Your task to perform on an android device: make emails show in primary in the gmail app Image 0: 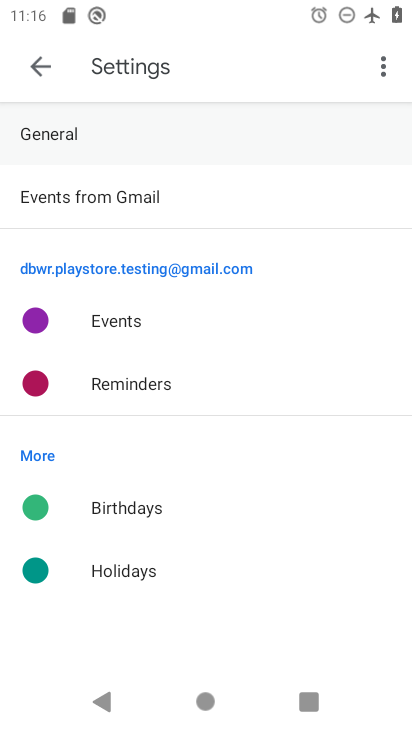
Step 0: press home button
Your task to perform on an android device: make emails show in primary in the gmail app Image 1: 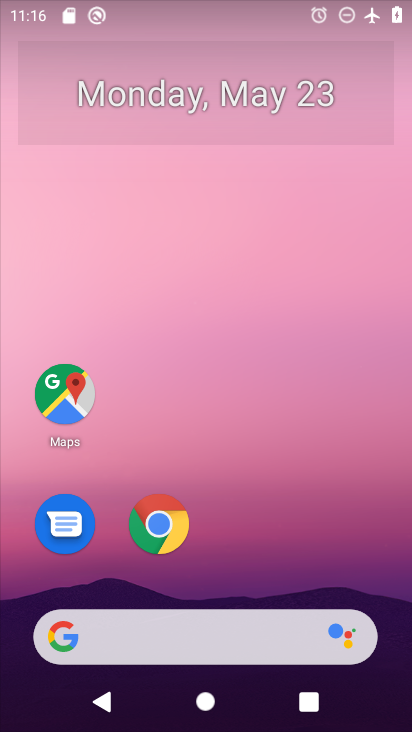
Step 1: drag from (259, 571) to (257, 222)
Your task to perform on an android device: make emails show in primary in the gmail app Image 2: 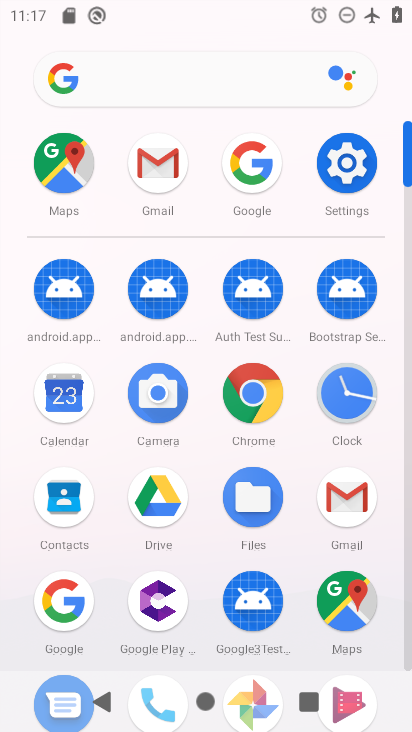
Step 2: click (318, 503)
Your task to perform on an android device: make emails show in primary in the gmail app Image 3: 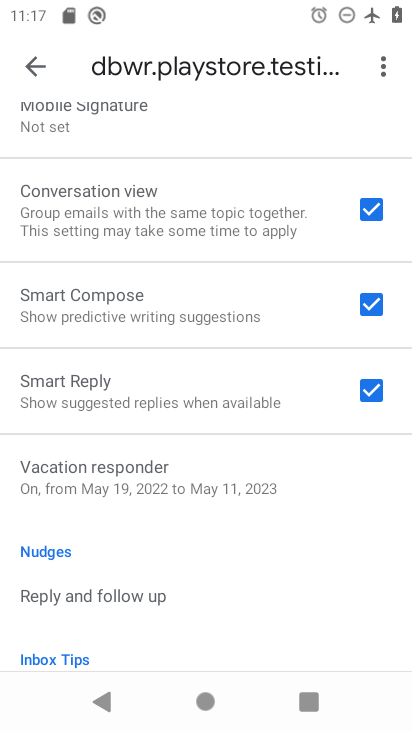
Step 3: click (26, 57)
Your task to perform on an android device: make emails show in primary in the gmail app Image 4: 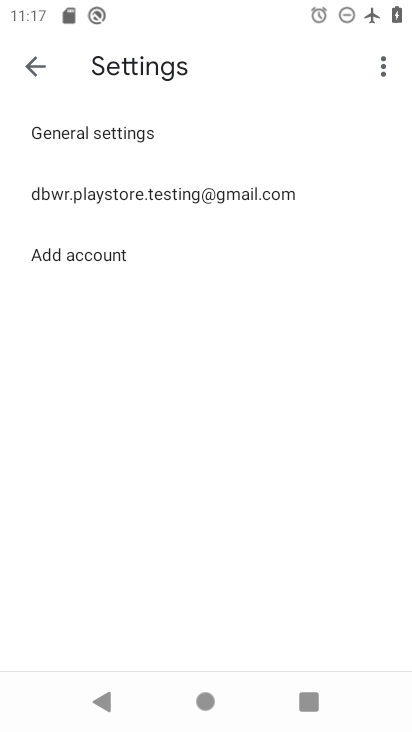
Step 4: click (104, 191)
Your task to perform on an android device: make emails show in primary in the gmail app Image 5: 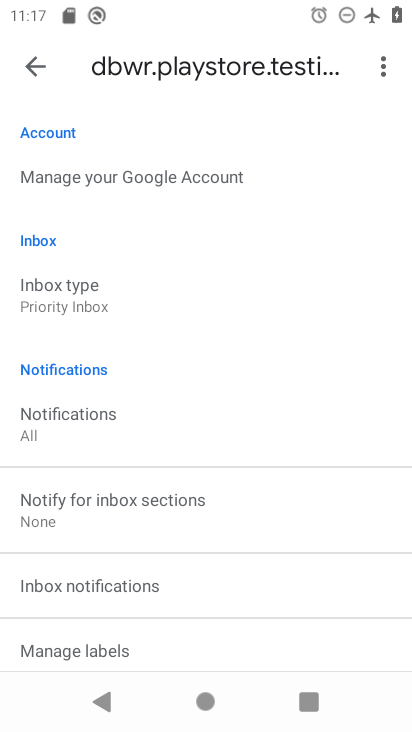
Step 5: click (66, 287)
Your task to perform on an android device: make emails show in primary in the gmail app Image 6: 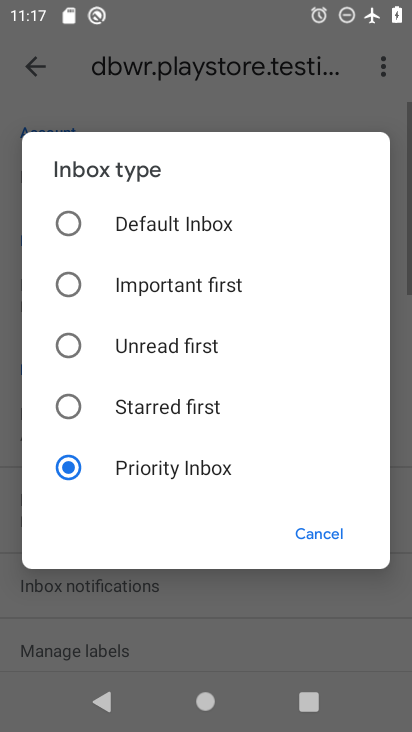
Step 6: click (75, 218)
Your task to perform on an android device: make emails show in primary in the gmail app Image 7: 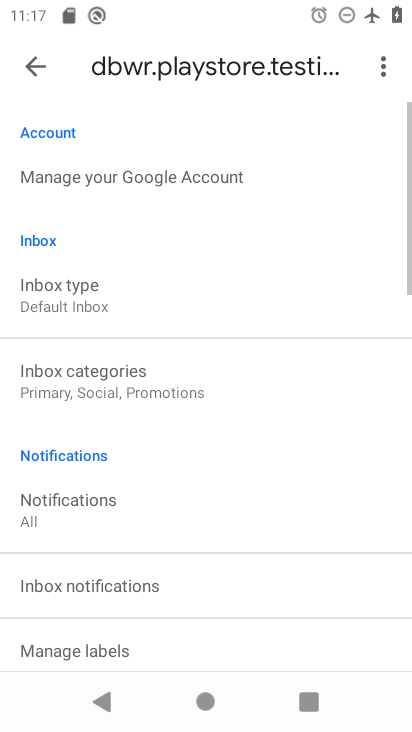
Step 7: click (63, 362)
Your task to perform on an android device: make emails show in primary in the gmail app Image 8: 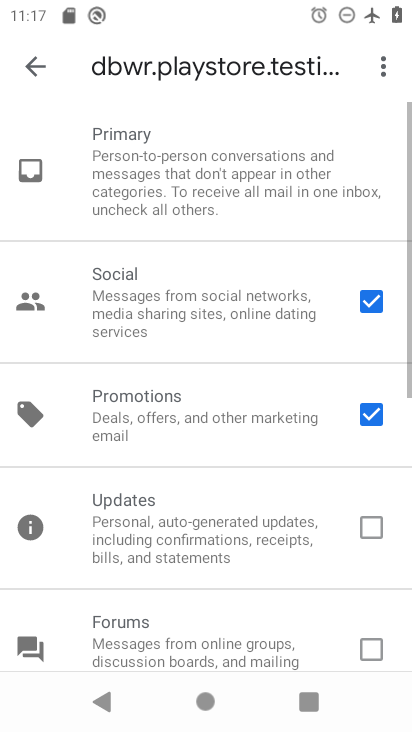
Step 8: click (144, 189)
Your task to perform on an android device: make emails show in primary in the gmail app Image 9: 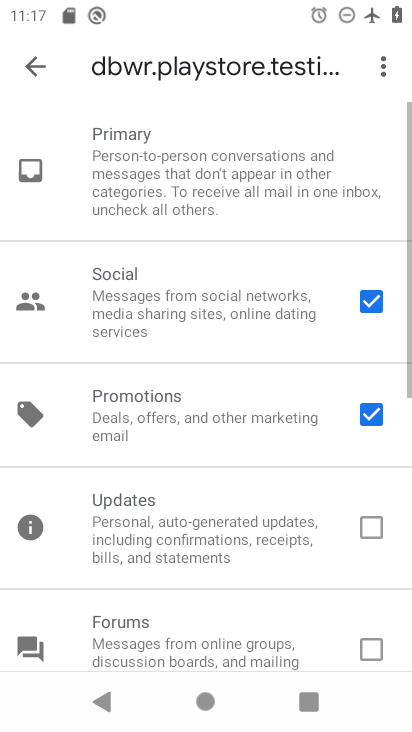
Step 9: task complete